Your task to perform on an android device: Open Yahoo.com Image 0: 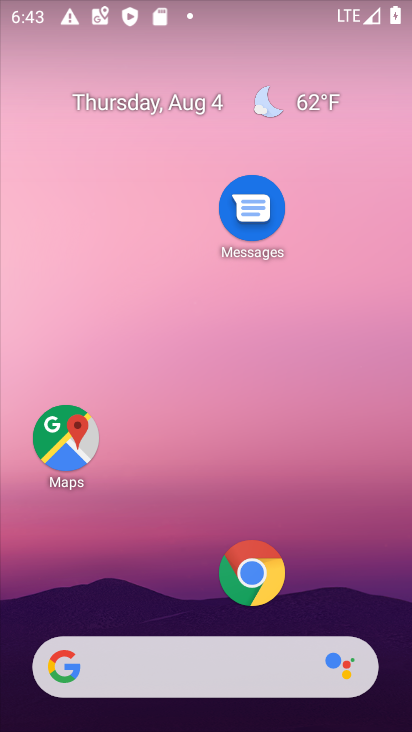
Step 0: press home button
Your task to perform on an android device: Open Yahoo.com Image 1: 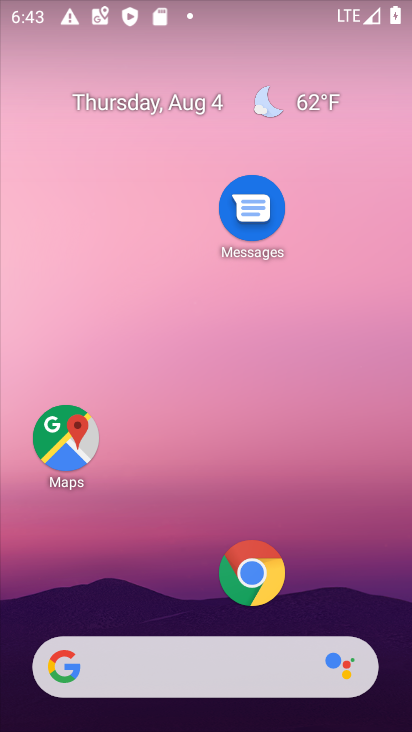
Step 1: click (205, 91)
Your task to perform on an android device: Open Yahoo.com Image 2: 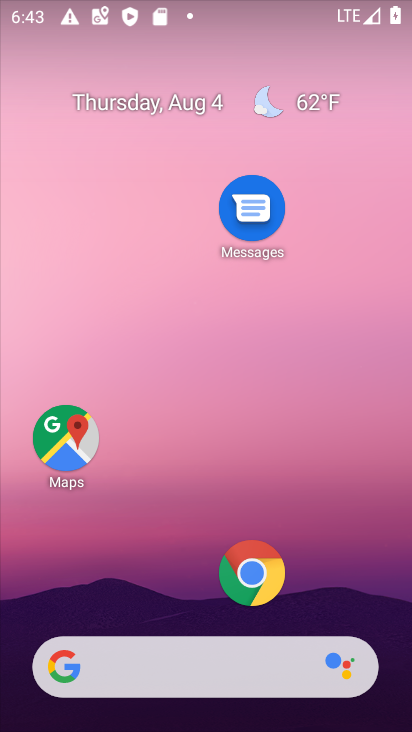
Step 2: click (64, 660)
Your task to perform on an android device: Open Yahoo.com Image 3: 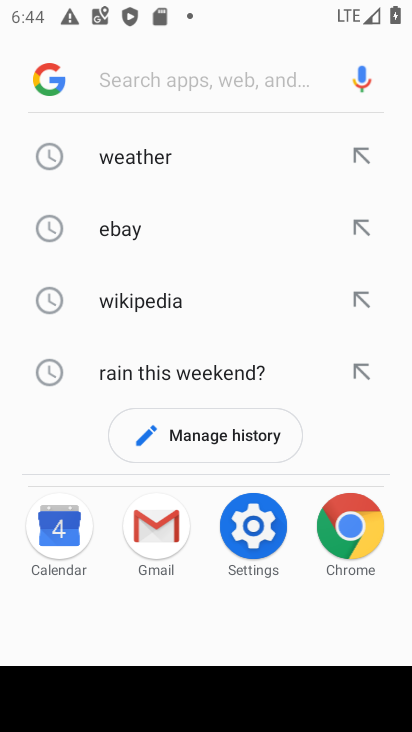
Step 3: type "Yahoo.com"
Your task to perform on an android device: Open Yahoo.com Image 4: 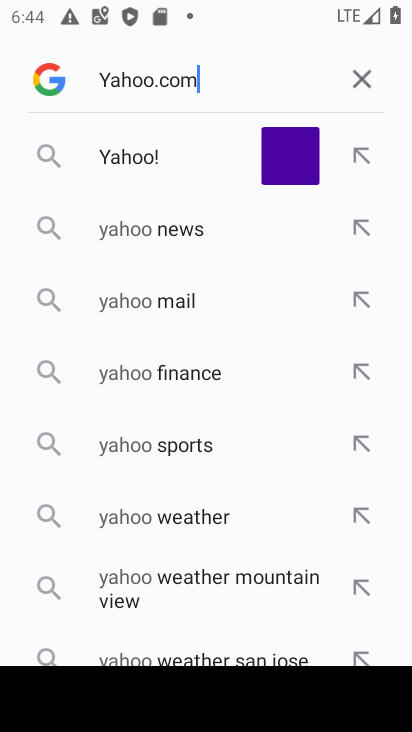
Step 4: press enter
Your task to perform on an android device: Open Yahoo.com Image 5: 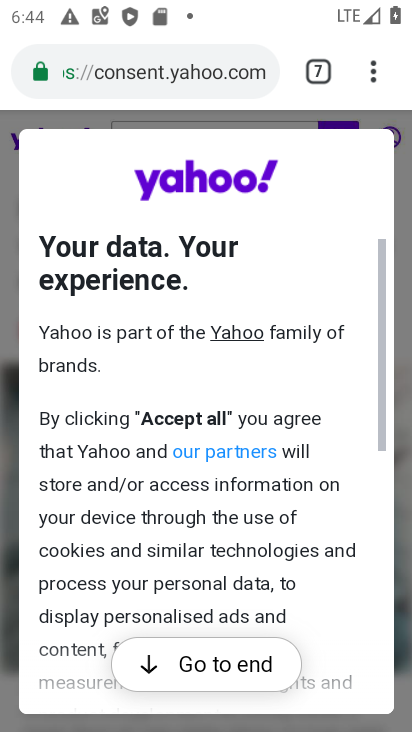
Step 5: drag from (381, 560) to (393, 130)
Your task to perform on an android device: Open Yahoo.com Image 6: 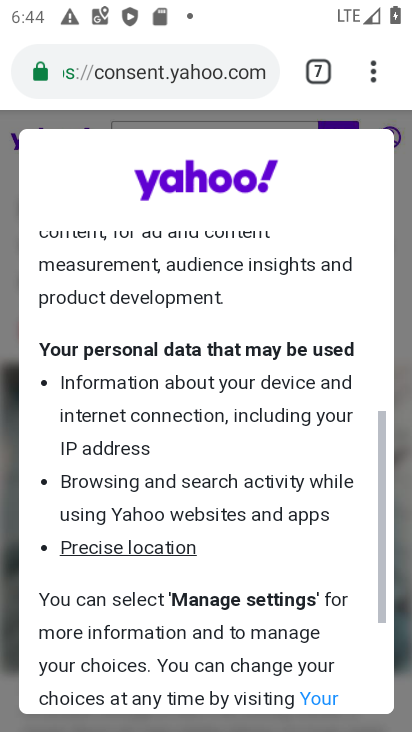
Step 6: drag from (336, 605) to (345, 218)
Your task to perform on an android device: Open Yahoo.com Image 7: 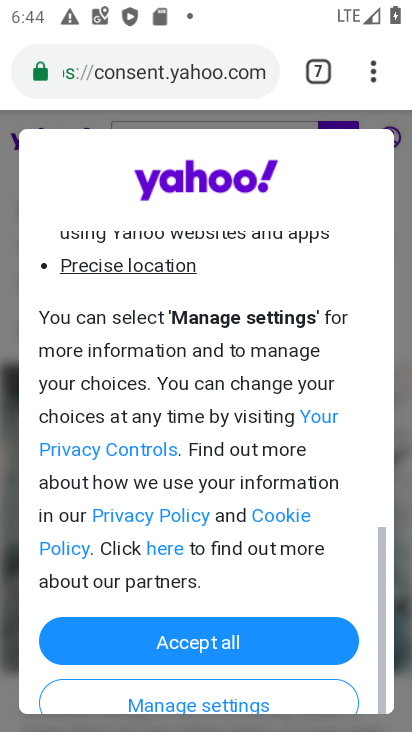
Step 7: click (130, 656)
Your task to perform on an android device: Open Yahoo.com Image 8: 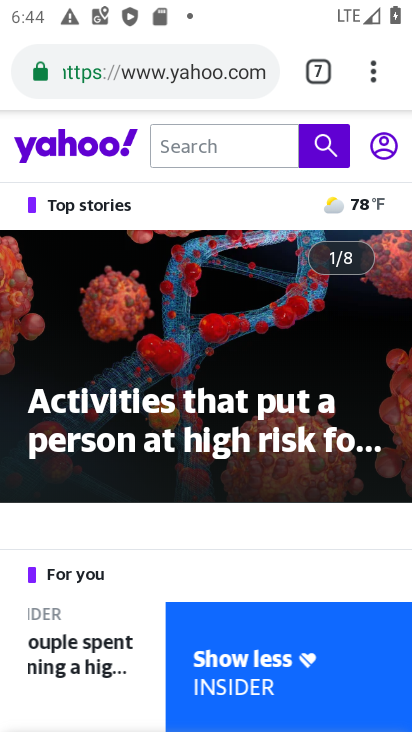
Step 8: task complete